Your task to perform on an android device: turn off location Image 0: 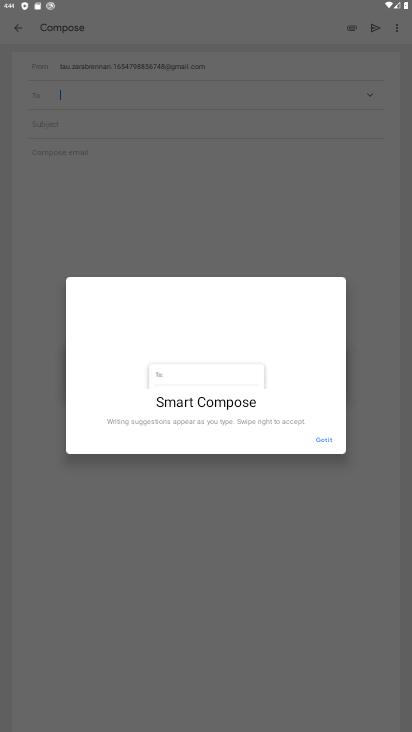
Step 0: press home button
Your task to perform on an android device: turn off location Image 1: 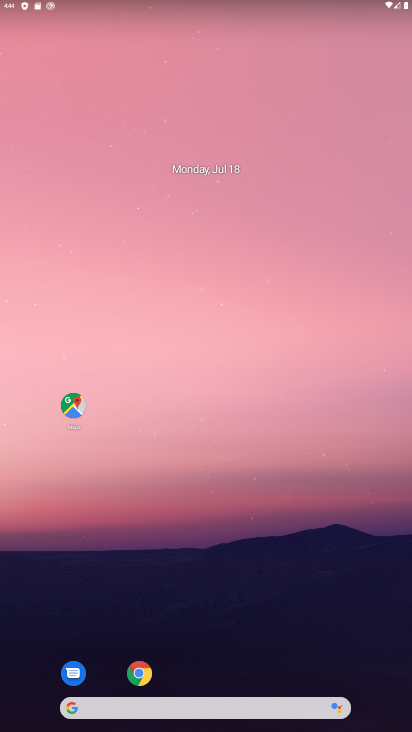
Step 1: drag from (348, 540) to (273, 117)
Your task to perform on an android device: turn off location Image 2: 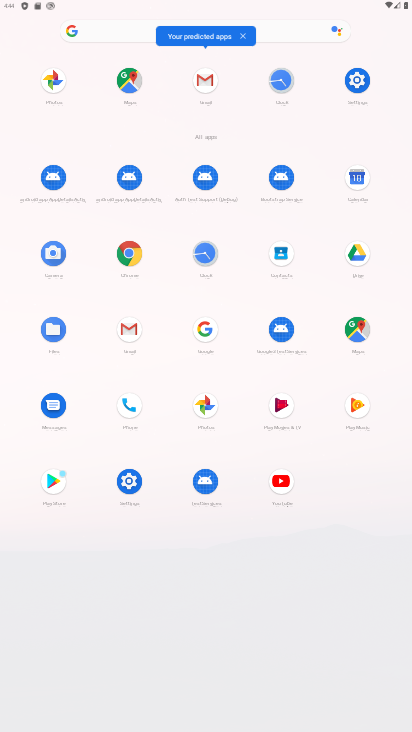
Step 2: click (356, 81)
Your task to perform on an android device: turn off location Image 3: 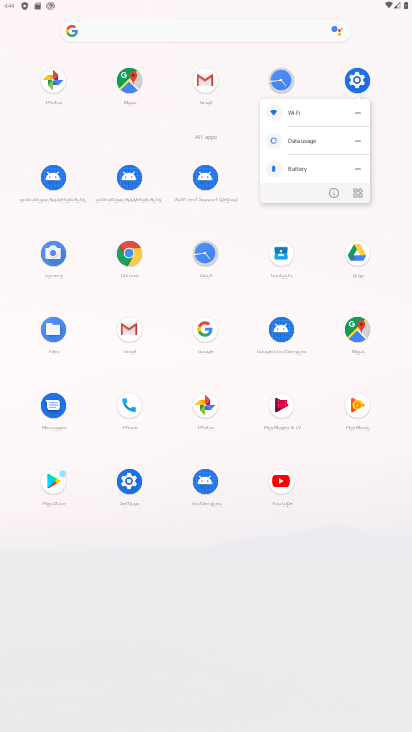
Step 3: click (356, 81)
Your task to perform on an android device: turn off location Image 4: 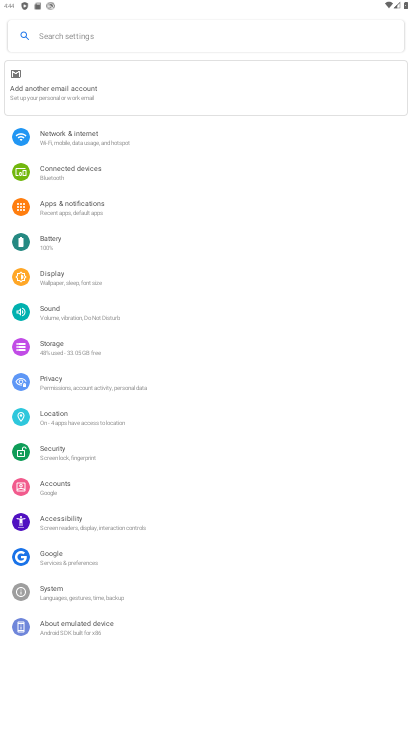
Step 4: click (39, 413)
Your task to perform on an android device: turn off location Image 5: 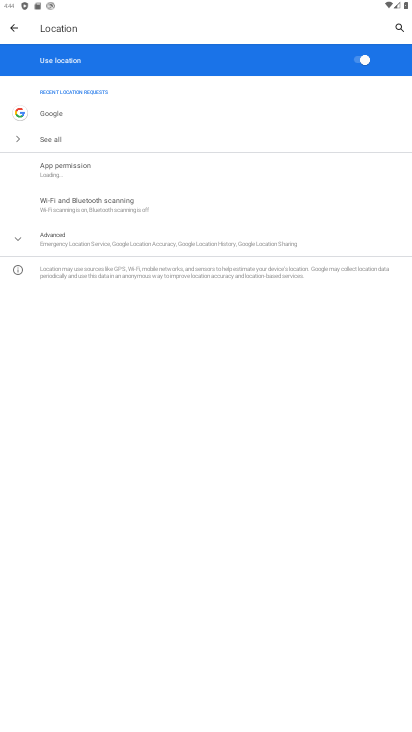
Step 5: click (355, 69)
Your task to perform on an android device: turn off location Image 6: 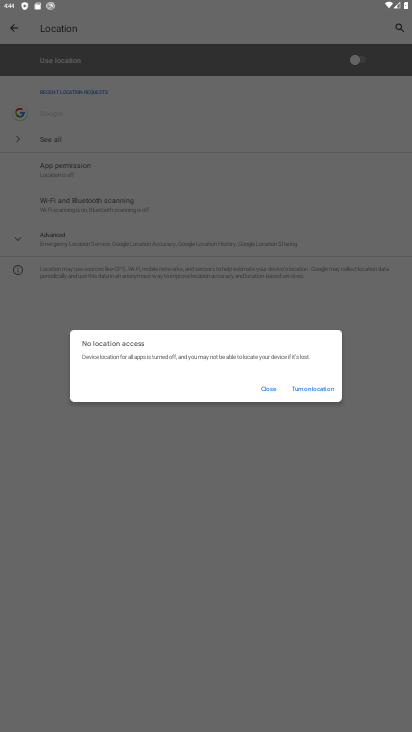
Step 6: task complete